Your task to perform on an android device: open app "HBO Max: Stream TV & Movies" (install if not already installed), go to login, and select forgot password Image 0: 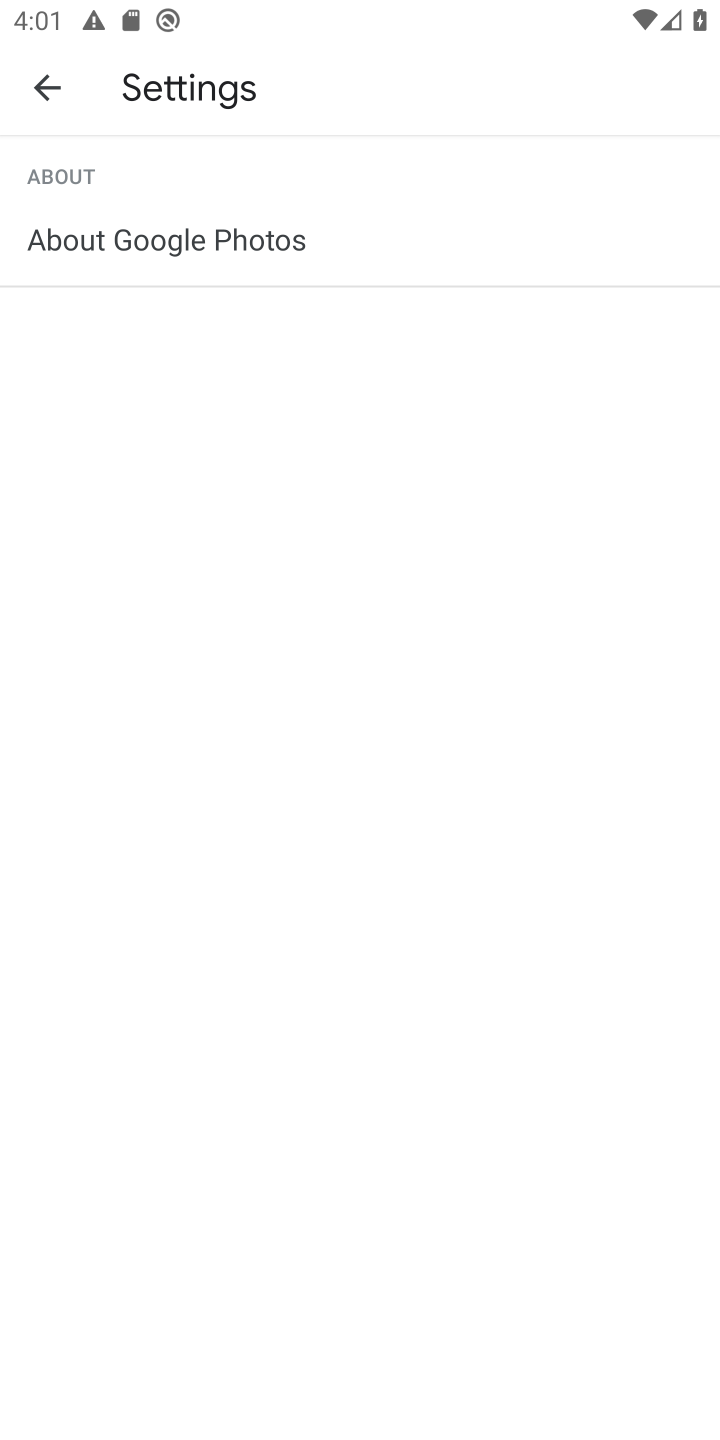
Step 0: press home button
Your task to perform on an android device: open app "HBO Max: Stream TV & Movies" (install if not already installed), go to login, and select forgot password Image 1: 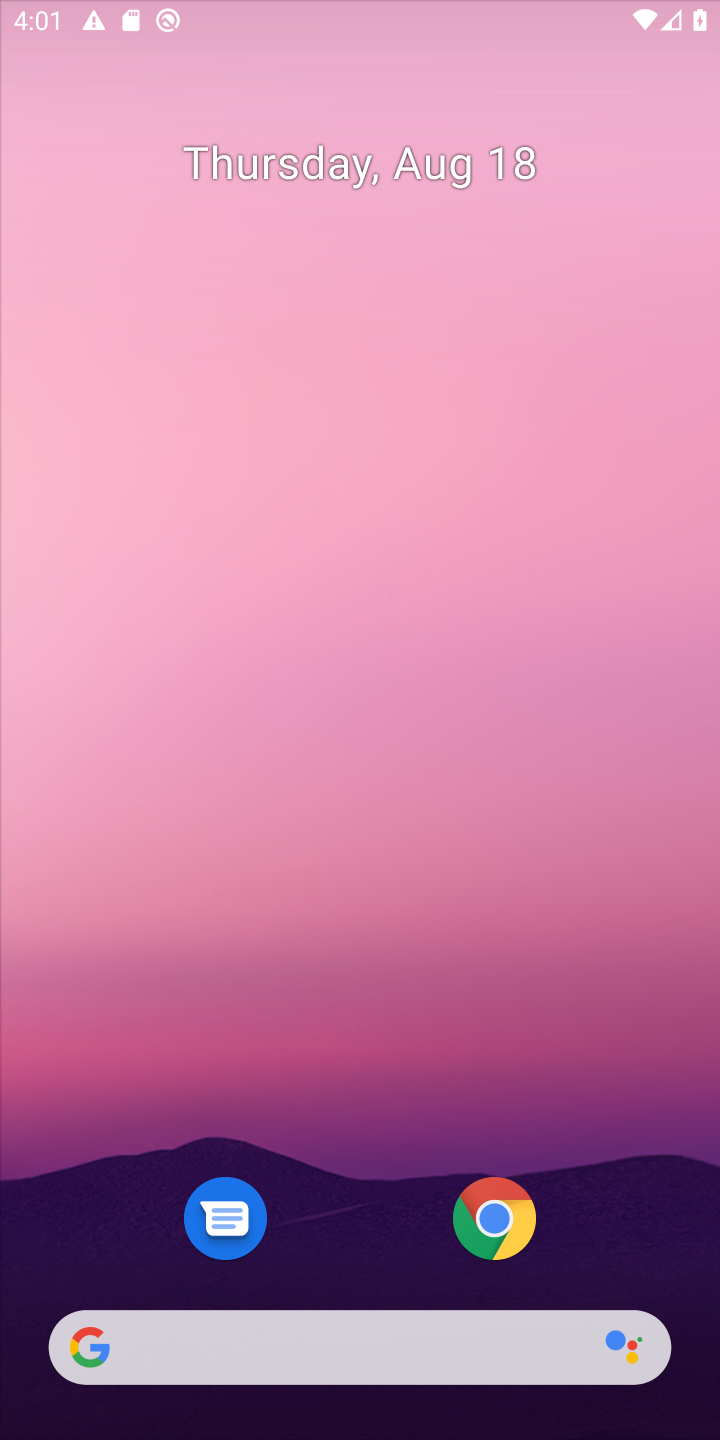
Step 1: drag from (315, 946) to (301, 414)
Your task to perform on an android device: open app "HBO Max: Stream TV & Movies" (install if not already installed), go to login, and select forgot password Image 2: 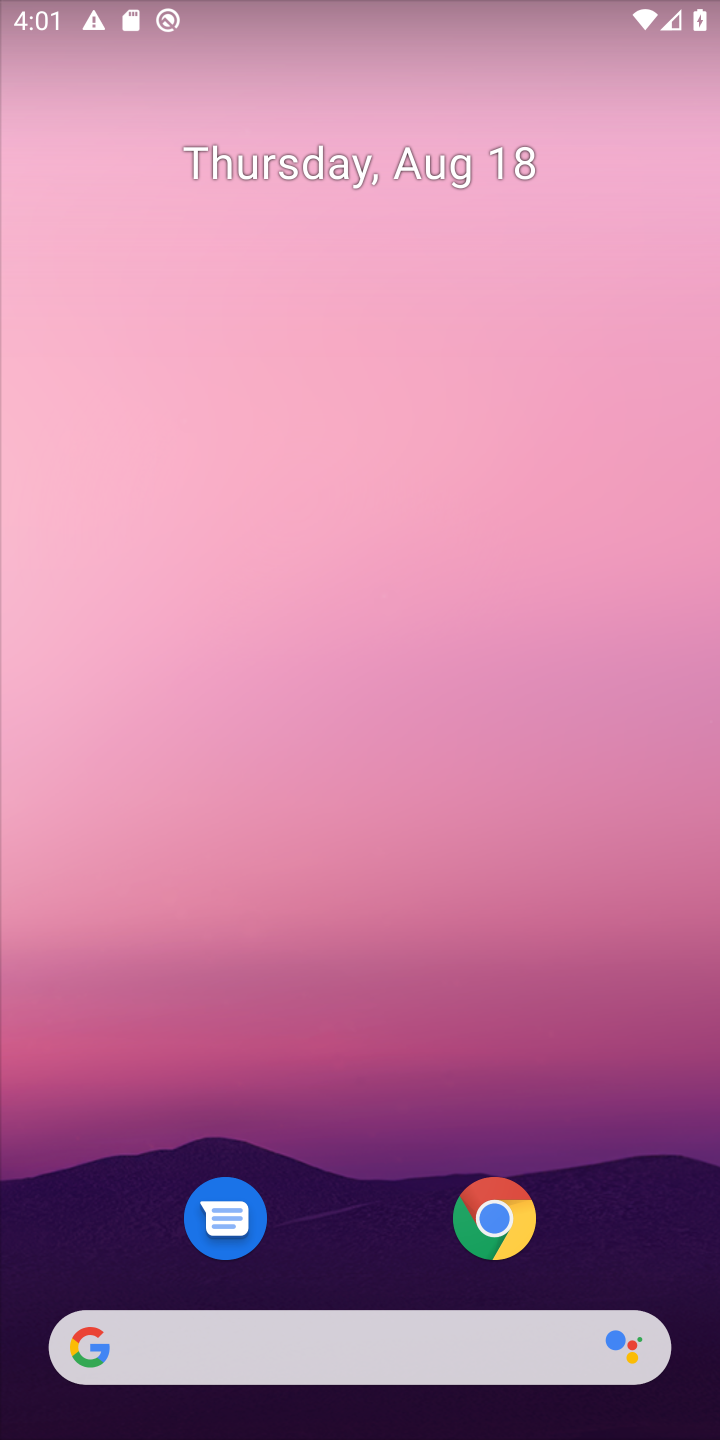
Step 2: drag from (340, 662) to (340, 216)
Your task to perform on an android device: open app "HBO Max: Stream TV & Movies" (install if not already installed), go to login, and select forgot password Image 3: 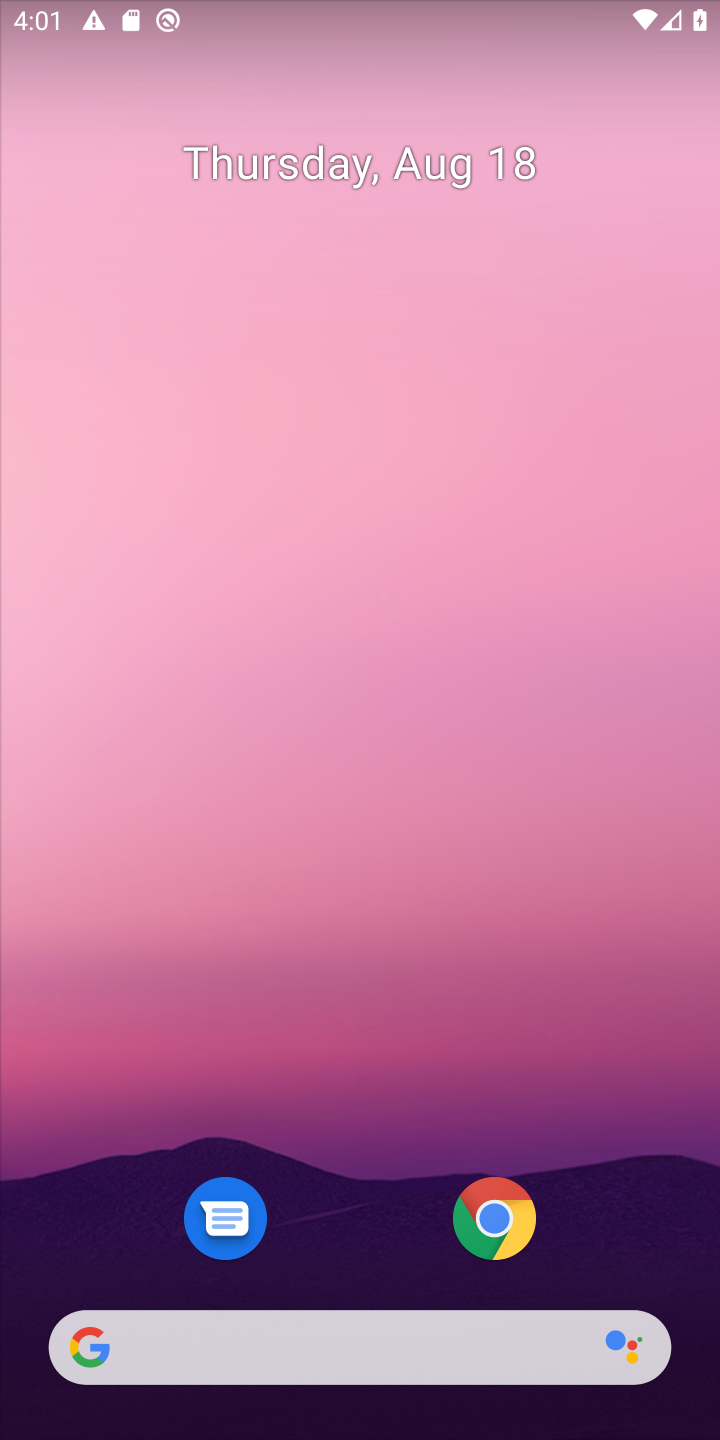
Step 3: drag from (342, 1143) to (272, 380)
Your task to perform on an android device: open app "HBO Max: Stream TV & Movies" (install if not already installed), go to login, and select forgot password Image 4: 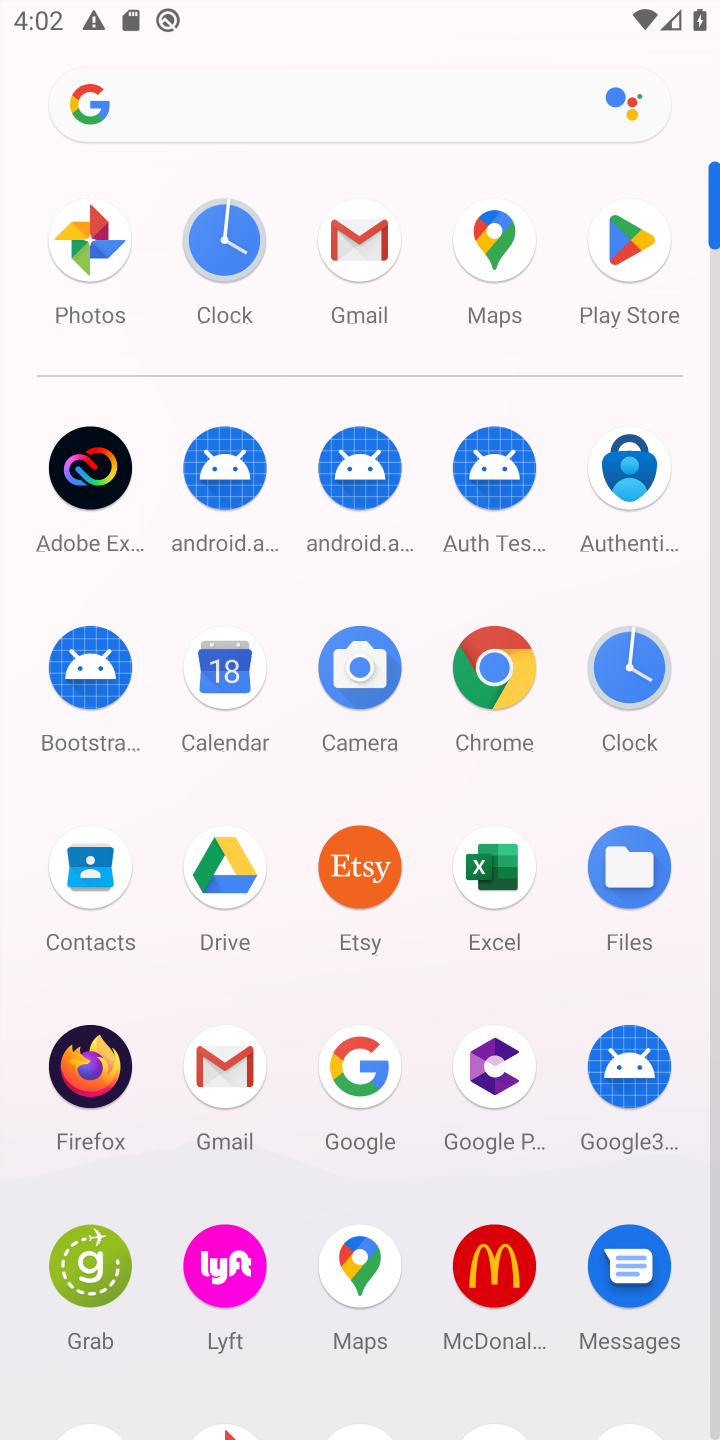
Step 4: click (606, 276)
Your task to perform on an android device: open app "HBO Max: Stream TV & Movies" (install if not already installed), go to login, and select forgot password Image 5: 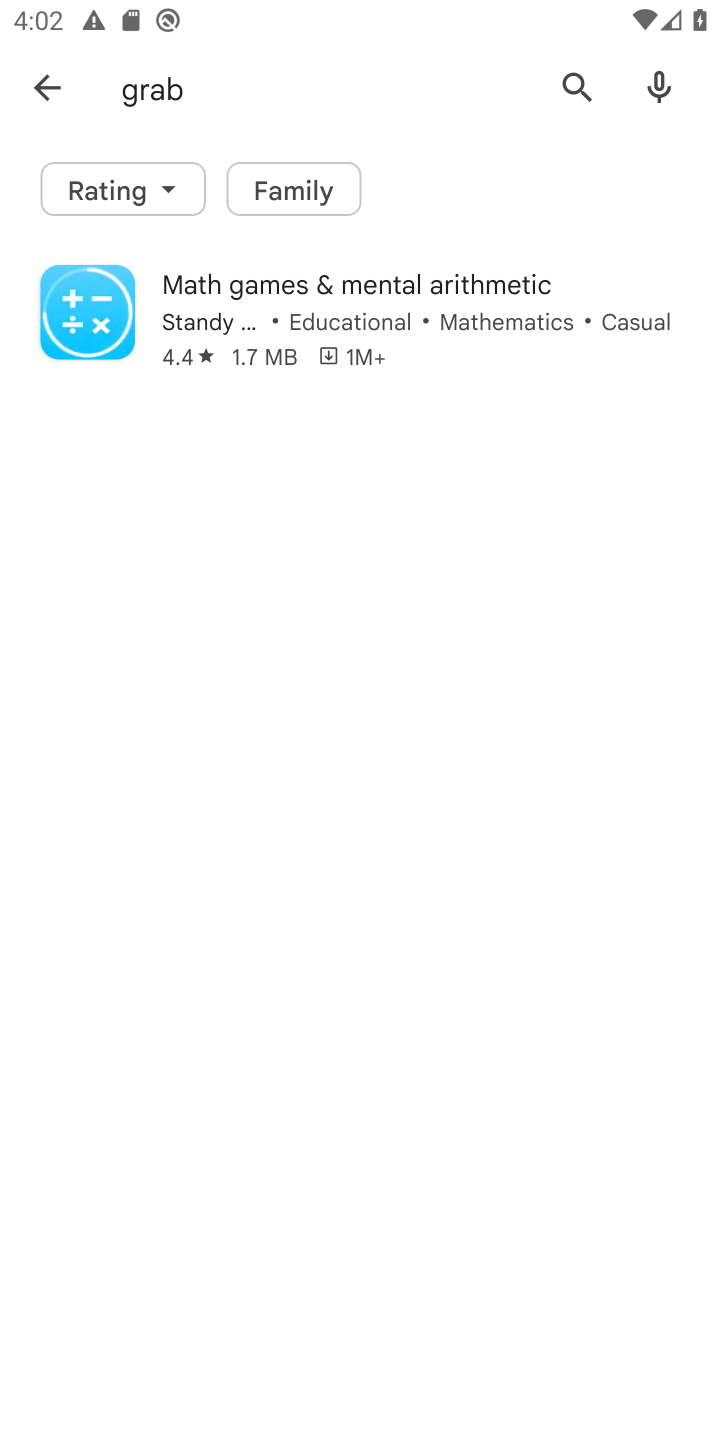
Step 5: click (595, 73)
Your task to perform on an android device: open app "HBO Max: Stream TV & Movies" (install if not already installed), go to login, and select forgot password Image 6: 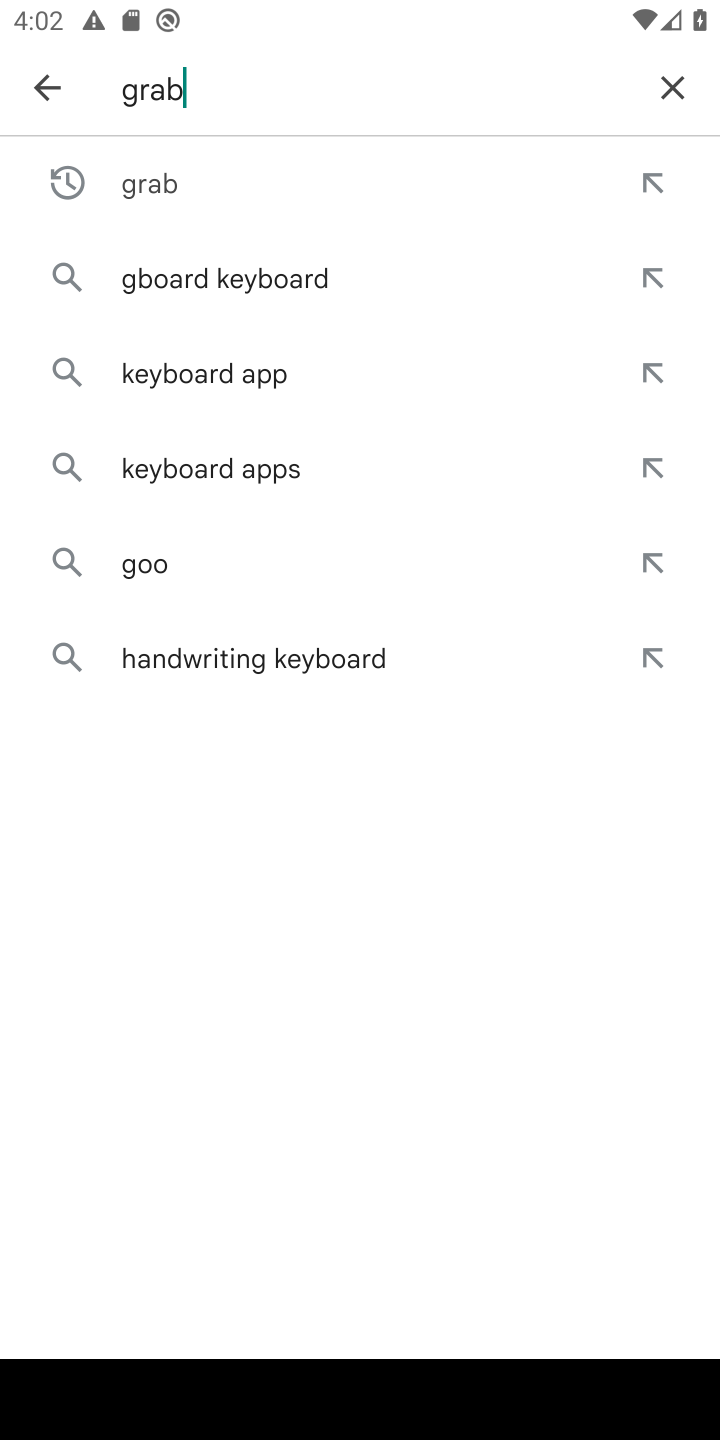
Step 6: click (671, 80)
Your task to perform on an android device: open app "HBO Max: Stream TV & Movies" (install if not already installed), go to login, and select forgot password Image 7: 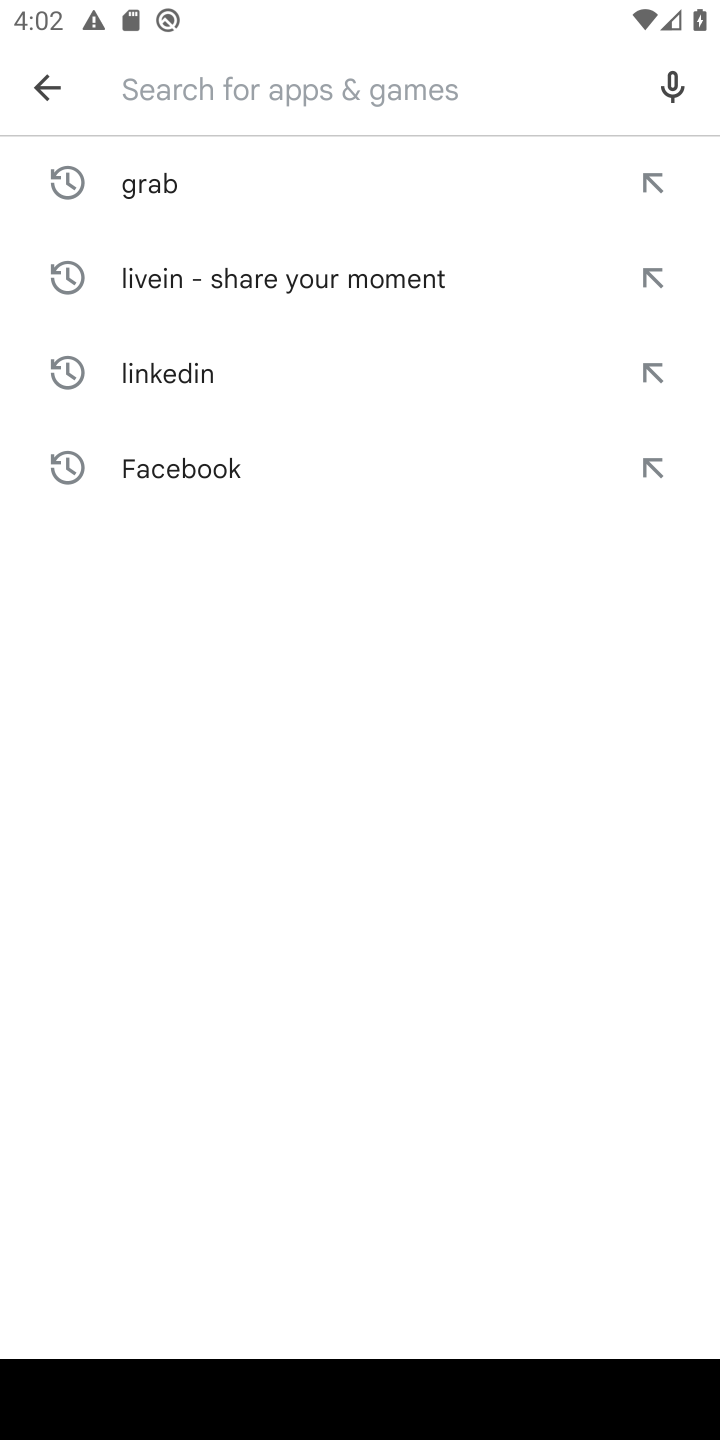
Step 7: type "HBO Max: Stream TV & Movies"
Your task to perform on an android device: open app "HBO Max: Stream TV & Movies" (install if not already installed), go to login, and select forgot password Image 8: 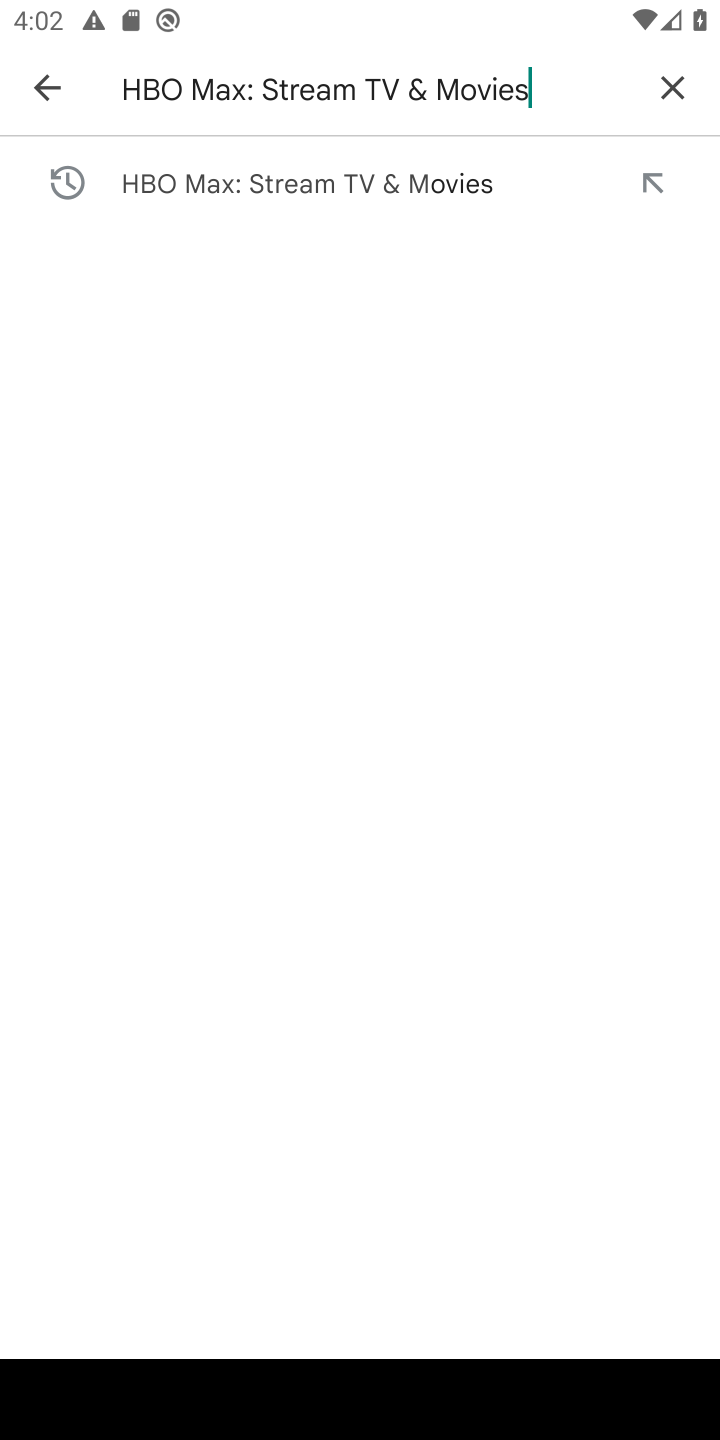
Step 8: type ""
Your task to perform on an android device: open app "HBO Max: Stream TV & Movies" (install if not already installed), go to login, and select forgot password Image 9: 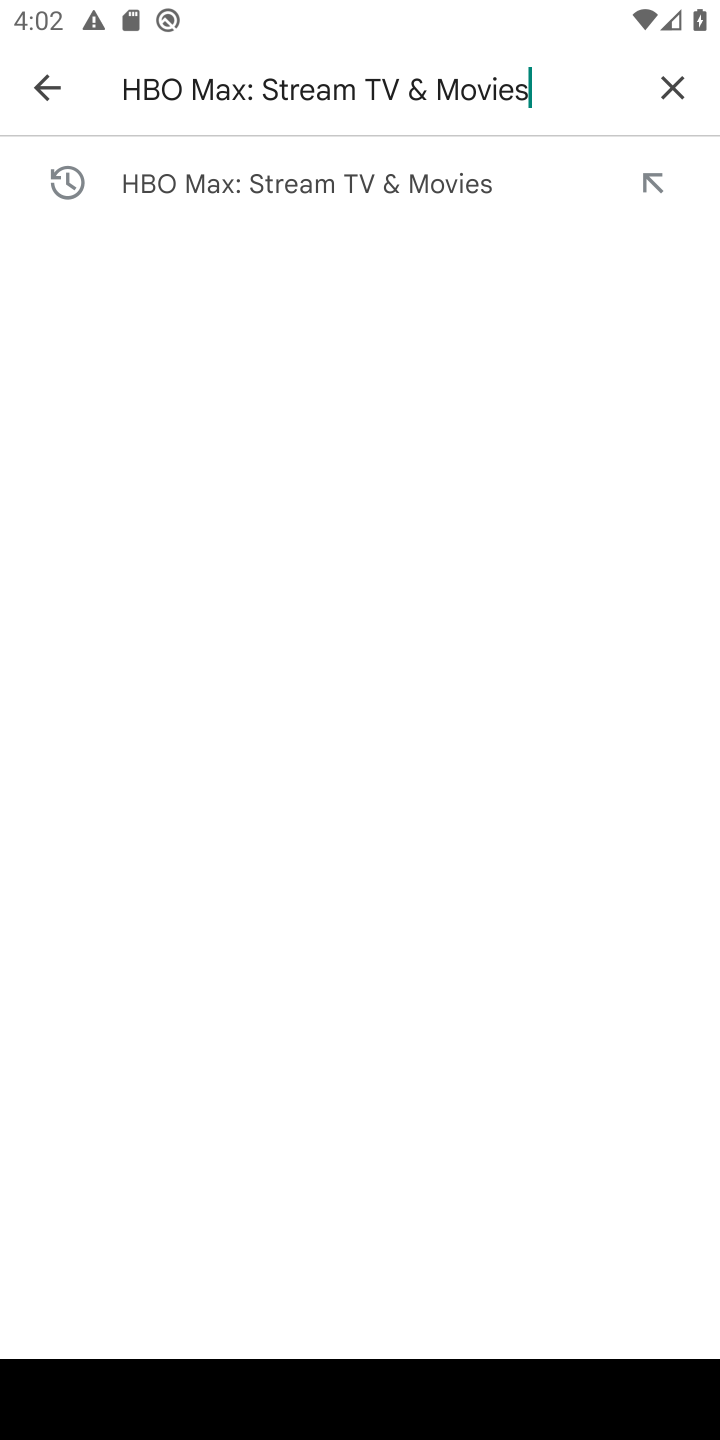
Step 9: click (393, 187)
Your task to perform on an android device: open app "HBO Max: Stream TV & Movies" (install if not already installed), go to login, and select forgot password Image 10: 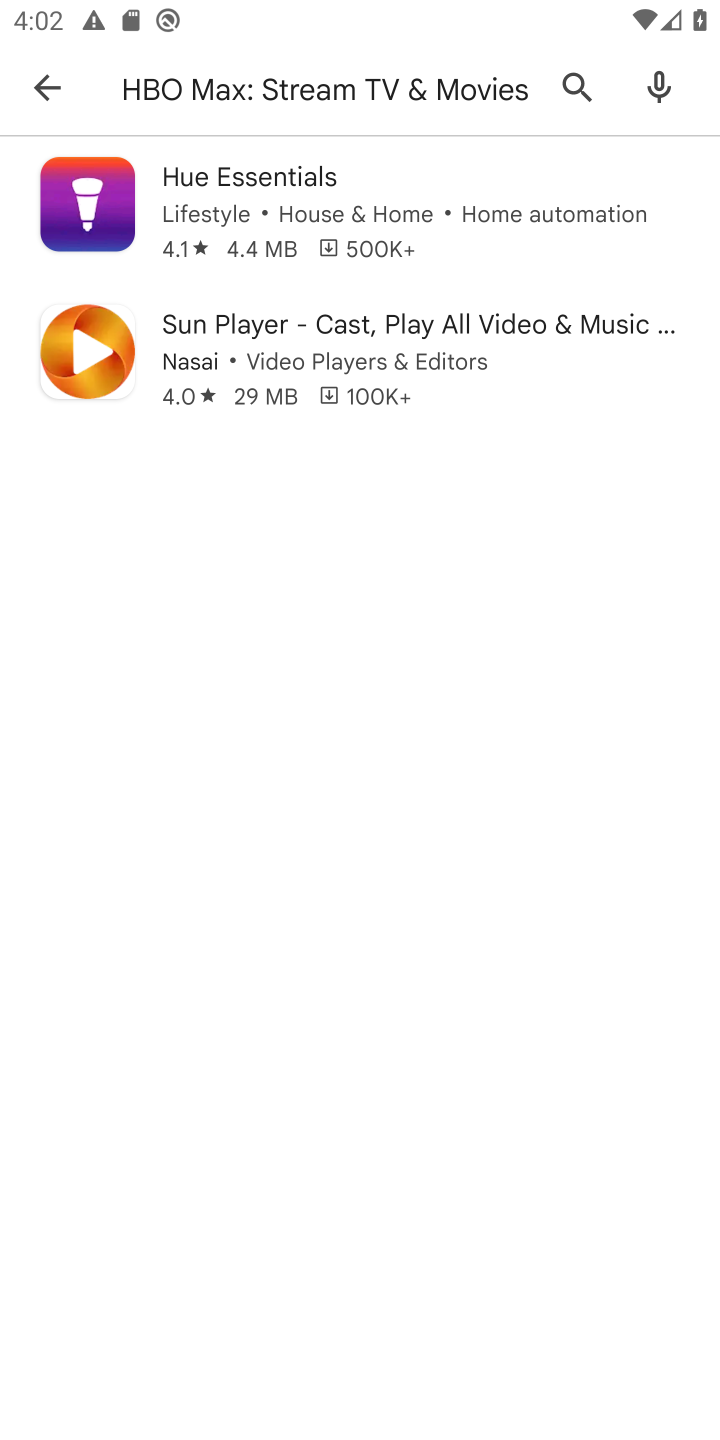
Step 10: task complete